Your task to perform on an android device: toggle translation in the chrome app Image 0: 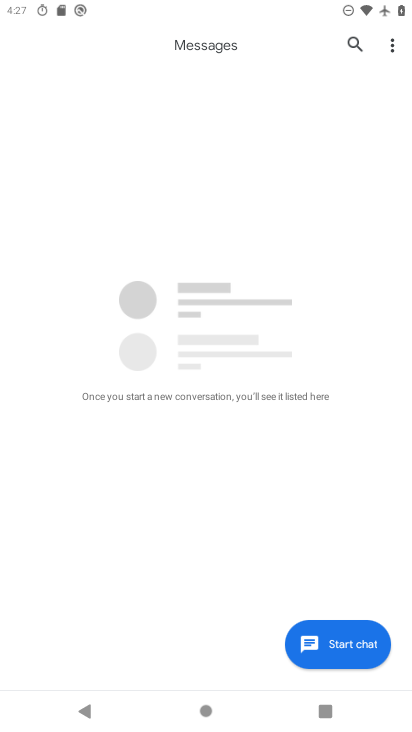
Step 0: press home button
Your task to perform on an android device: toggle translation in the chrome app Image 1: 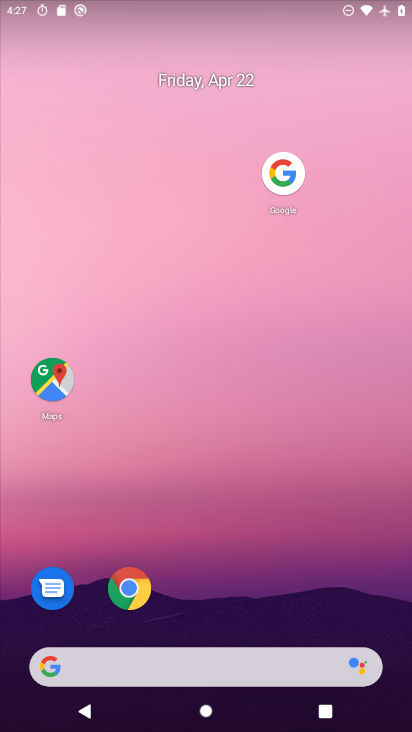
Step 1: click (119, 598)
Your task to perform on an android device: toggle translation in the chrome app Image 2: 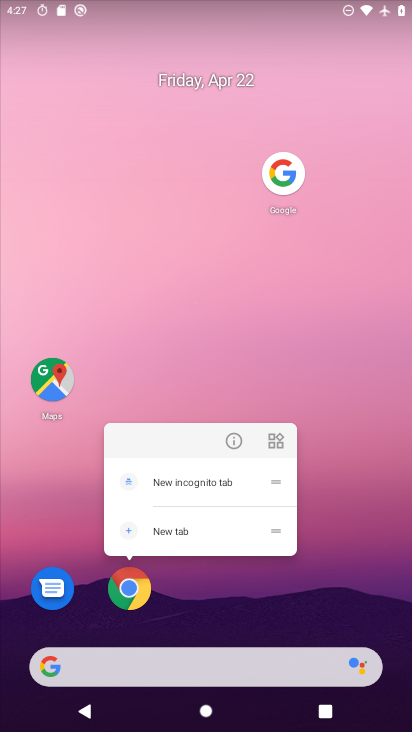
Step 2: click (133, 582)
Your task to perform on an android device: toggle translation in the chrome app Image 3: 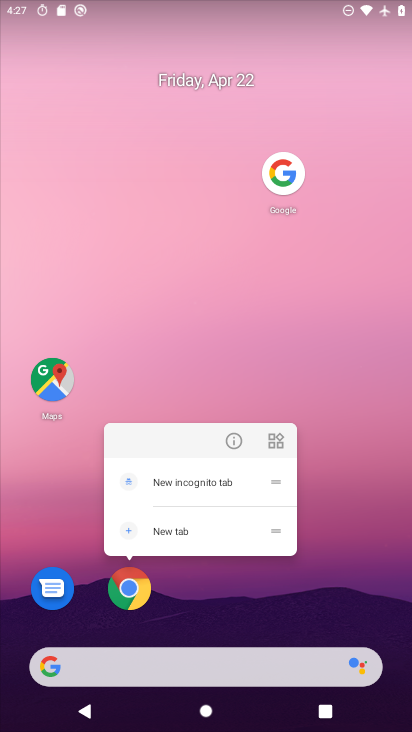
Step 3: click (140, 583)
Your task to perform on an android device: toggle translation in the chrome app Image 4: 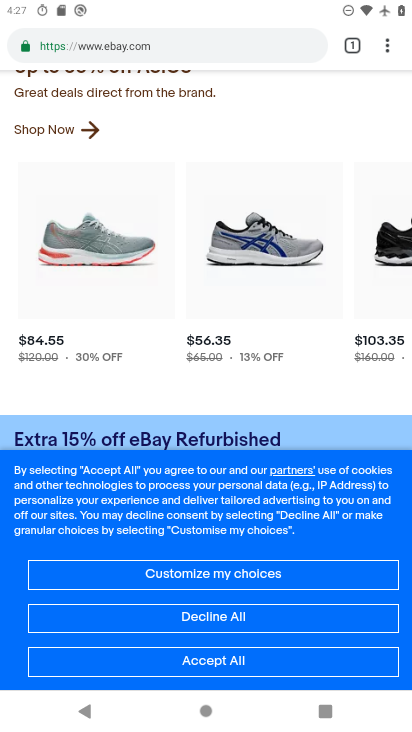
Step 4: drag from (385, 41) to (224, 593)
Your task to perform on an android device: toggle translation in the chrome app Image 5: 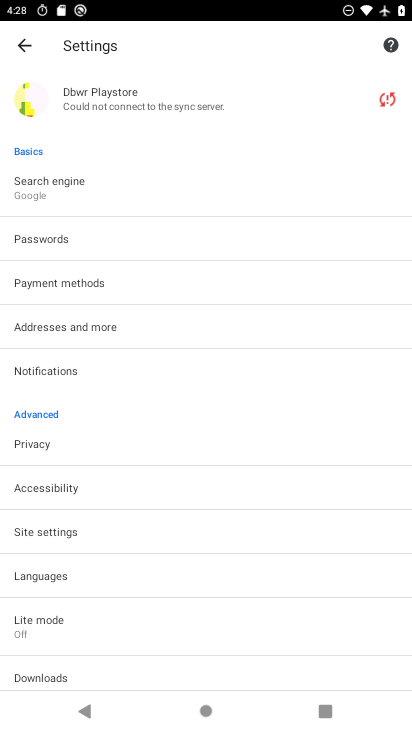
Step 5: click (57, 564)
Your task to perform on an android device: toggle translation in the chrome app Image 6: 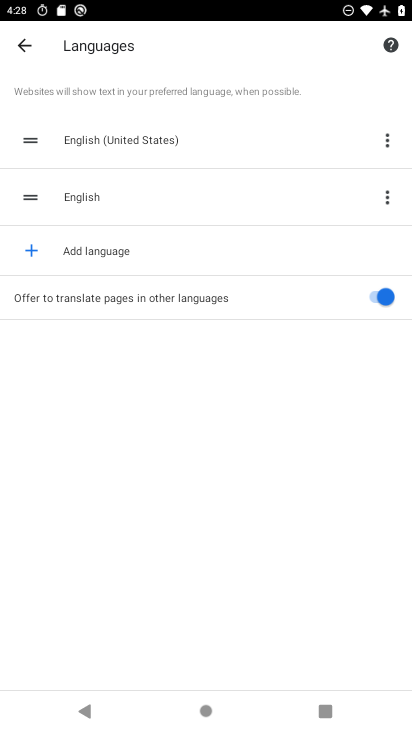
Step 6: click (380, 277)
Your task to perform on an android device: toggle translation in the chrome app Image 7: 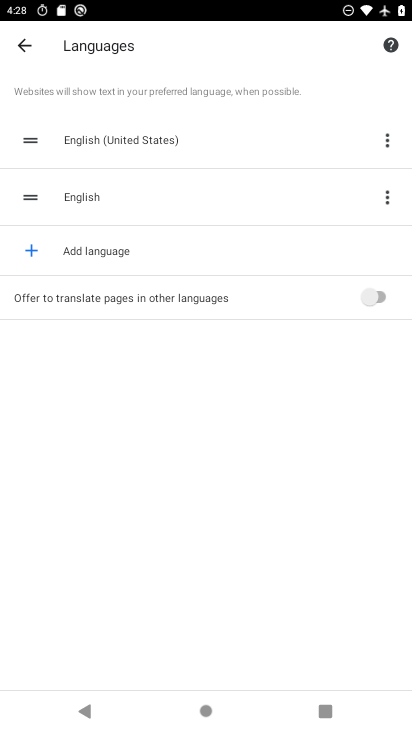
Step 7: task complete